Your task to perform on an android device: toggle wifi Image 0: 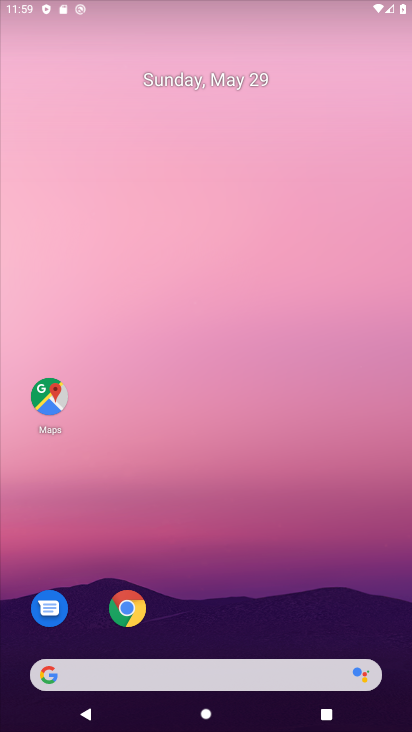
Step 0: drag from (211, 611) to (230, 267)
Your task to perform on an android device: toggle wifi Image 1: 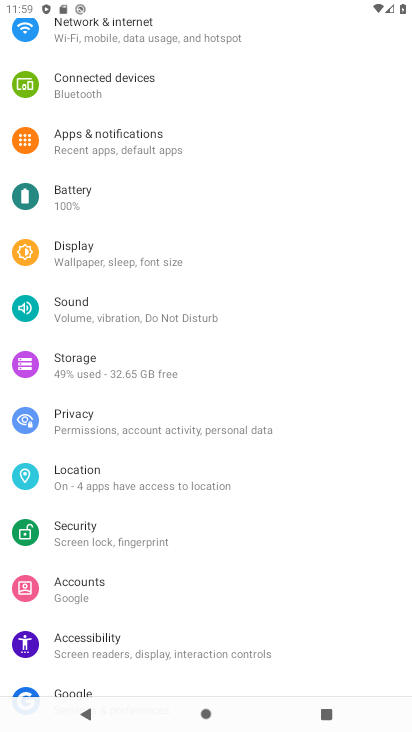
Step 1: drag from (159, 151) to (129, 511)
Your task to perform on an android device: toggle wifi Image 2: 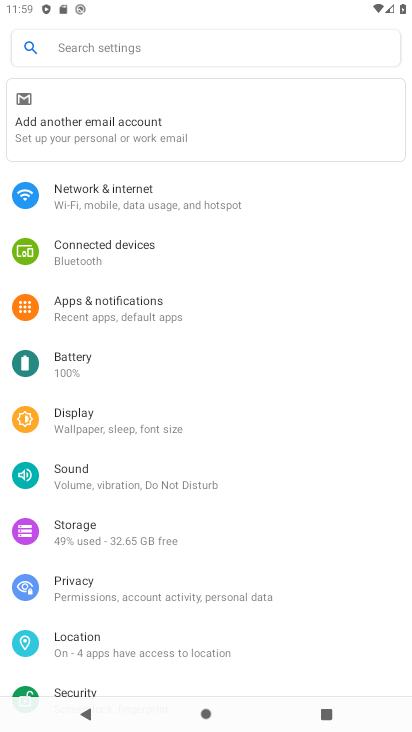
Step 2: click (156, 207)
Your task to perform on an android device: toggle wifi Image 3: 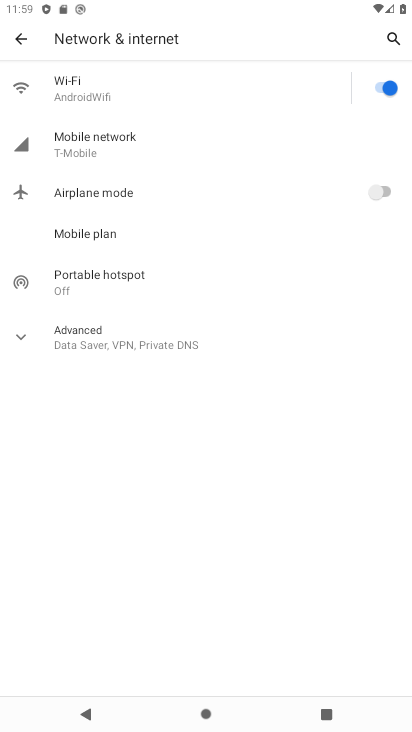
Step 3: click (376, 84)
Your task to perform on an android device: toggle wifi Image 4: 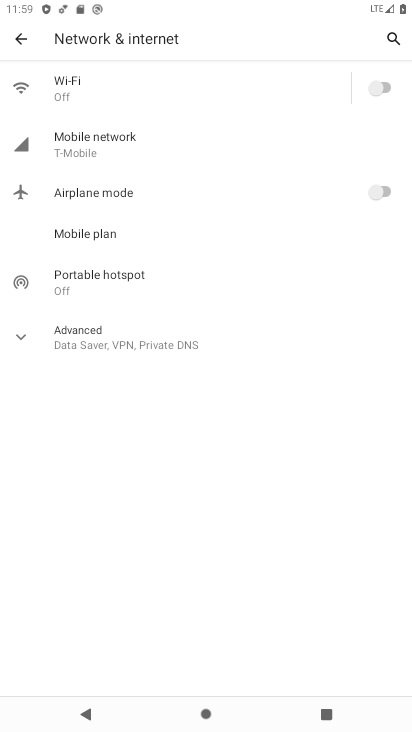
Step 4: task complete